Your task to perform on an android device: change keyboard looks Image 0: 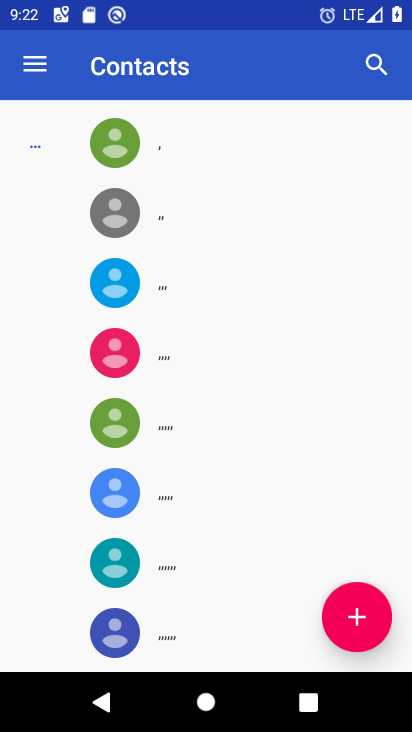
Step 0: press home button
Your task to perform on an android device: change keyboard looks Image 1: 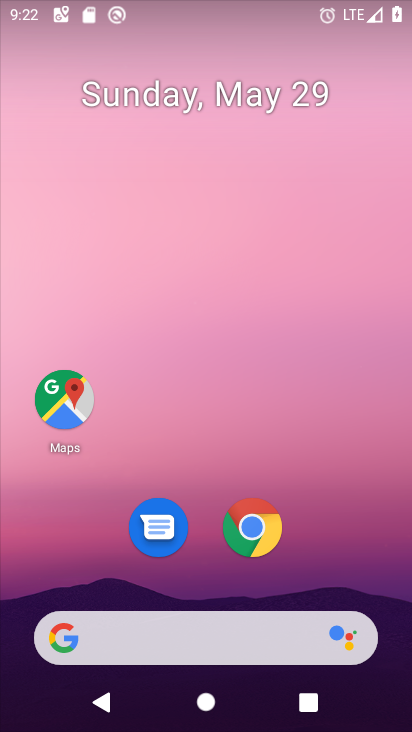
Step 1: drag from (206, 583) to (211, 29)
Your task to perform on an android device: change keyboard looks Image 2: 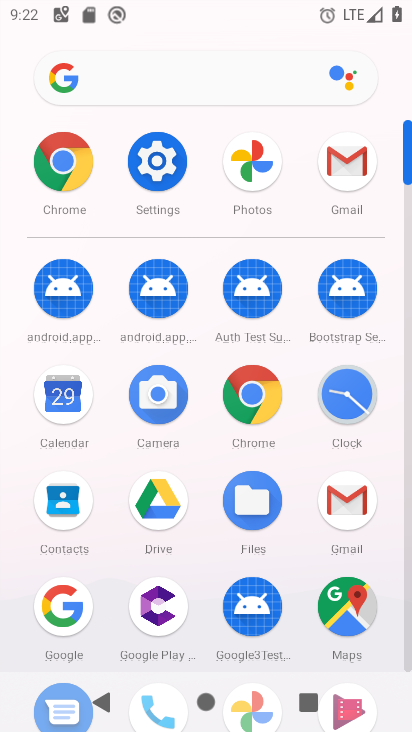
Step 2: click (155, 156)
Your task to perform on an android device: change keyboard looks Image 3: 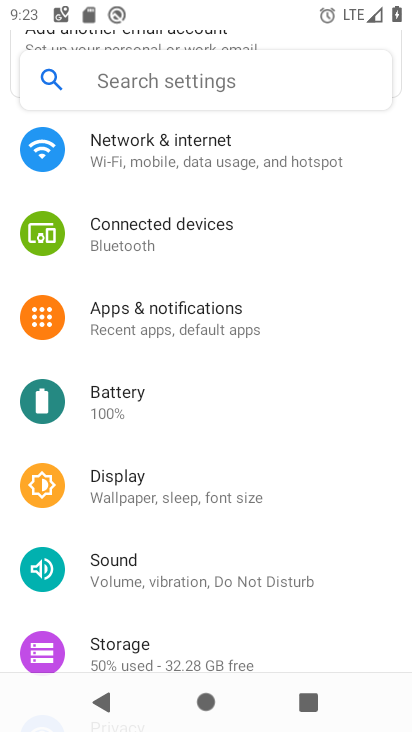
Step 3: drag from (218, 609) to (211, 174)
Your task to perform on an android device: change keyboard looks Image 4: 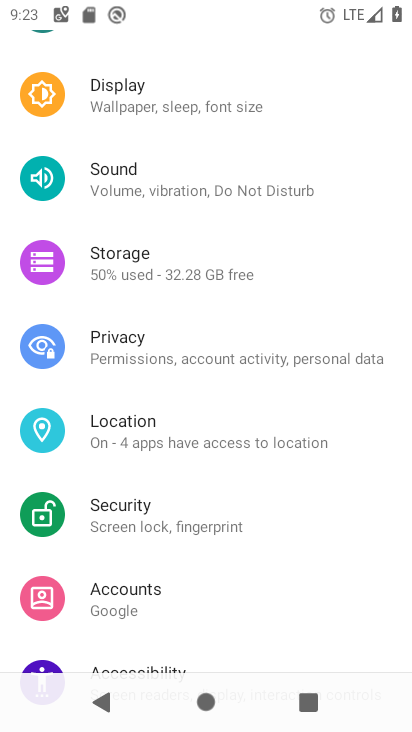
Step 4: drag from (170, 621) to (197, 152)
Your task to perform on an android device: change keyboard looks Image 5: 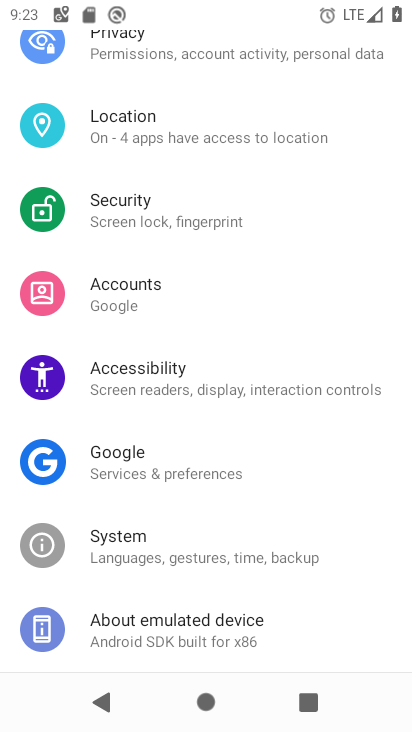
Step 5: click (164, 534)
Your task to perform on an android device: change keyboard looks Image 6: 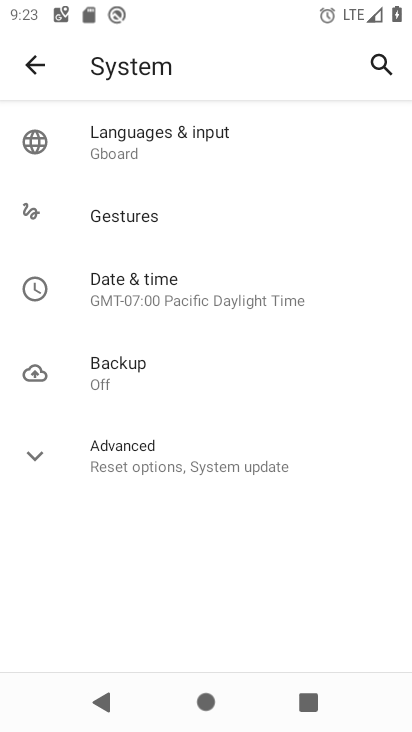
Step 6: click (40, 443)
Your task to perform on an android device: change keyboard looks Image 7: 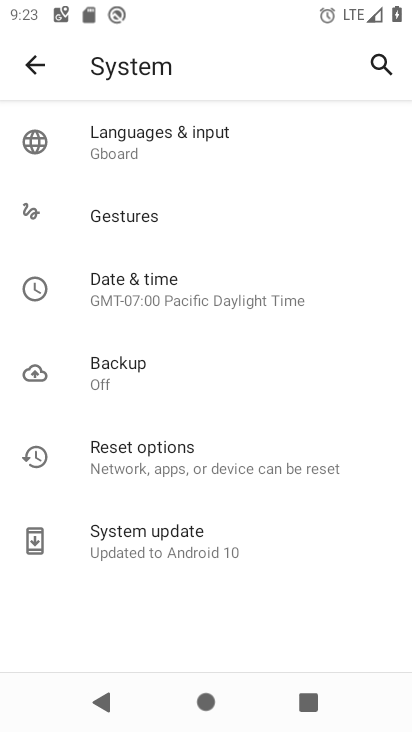
Step 7: click (89, 147)
Your task to perform on an android device: change keyboard looks Image 8: 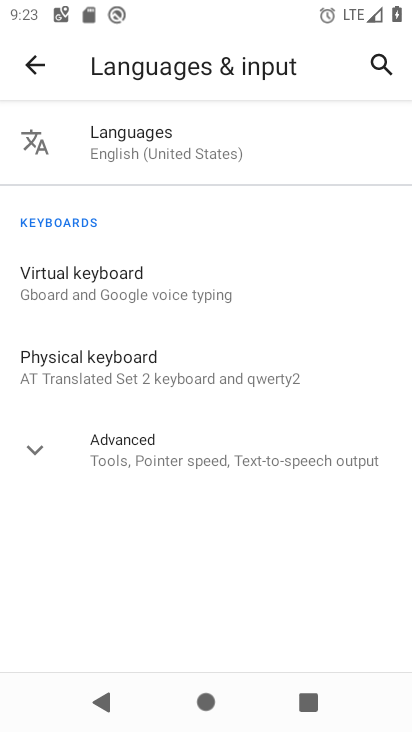
Step 8: click (148, 274)
Your task to perform on an android device: change keyboard looks Image 9: 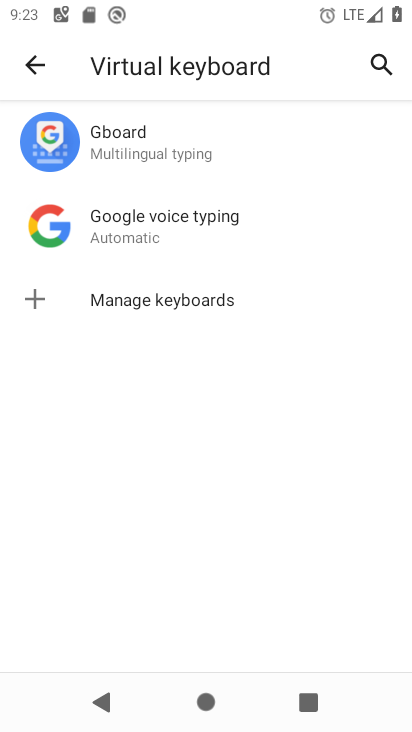
Step 9: click (137, 139)
Your task to perform on an android device: change keyboard looks Image 10: 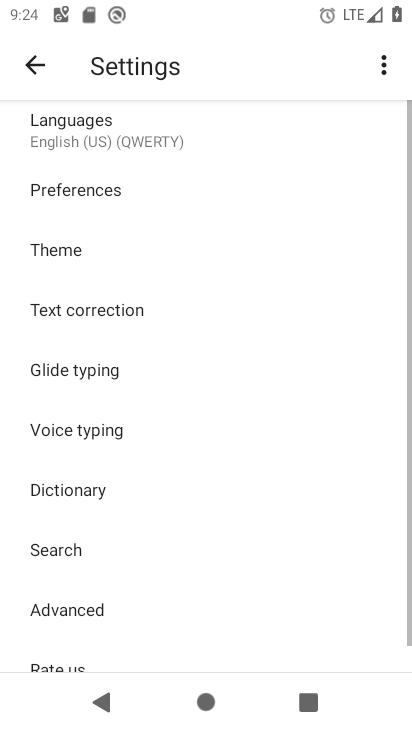
Step 10: click (108, 250)
Your task to perform on an android device: change keyboard looks Image 11: 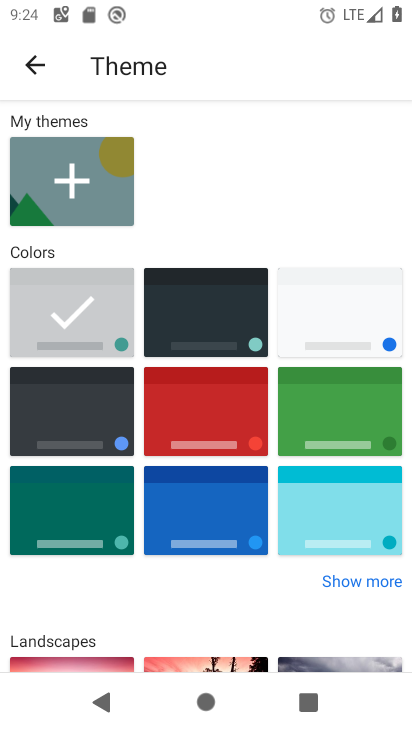
Step 11: click (213, 416)
Your task to perform on an android device: change keyboard looks Image 12: 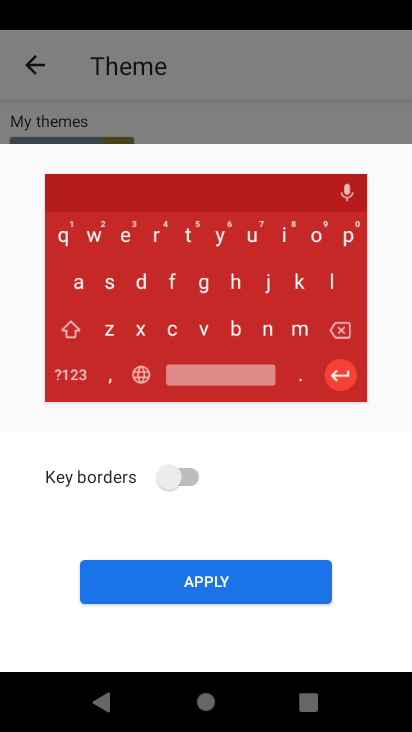
Step 12: click (208, 578)
Your task to perform on an android device: change keyboard looks Image 13: 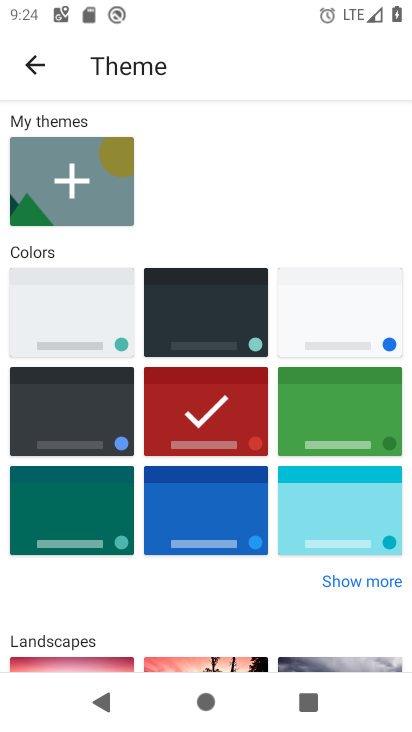
Step 13: task complete